Your task to perform on an android device: Open Youtube and go to "Your channel" Image 0: 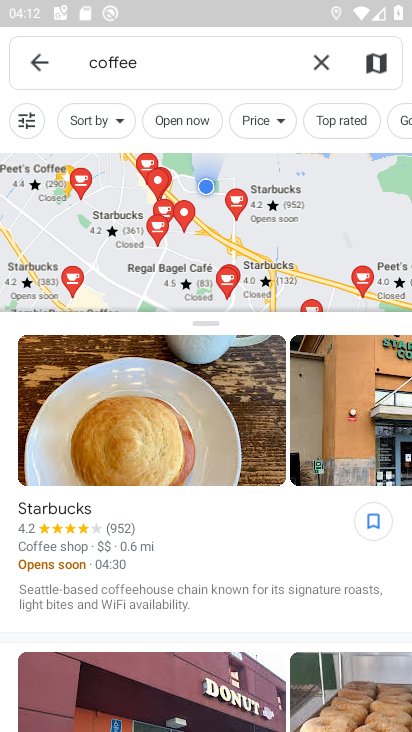
Step 0: press home button
Your task to perform on an android device: Open Youtube and go to "Your channel" Image 1: 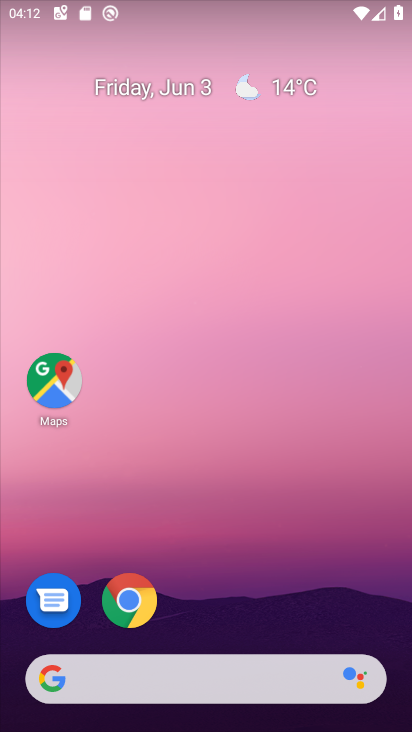
Step 1: drag from (321, 597) to (261, 166)
Your task to perform on an android device: Open Youtube and go to "Your channel" Image 2: 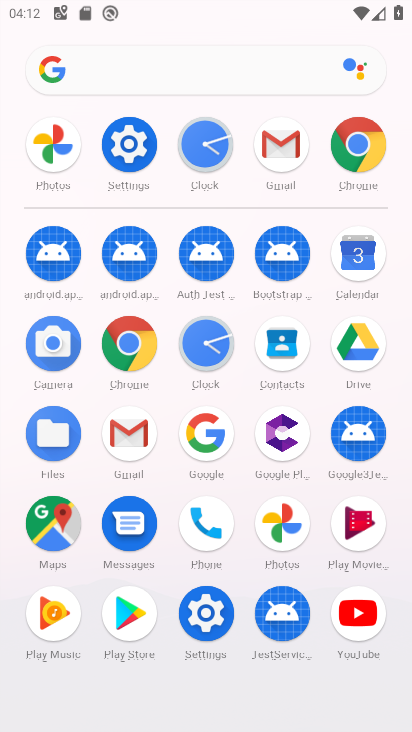
Step 2: click (357, 627)
Your task to perform on an android device: Open Youtube and go to "Your channel" Image 3: 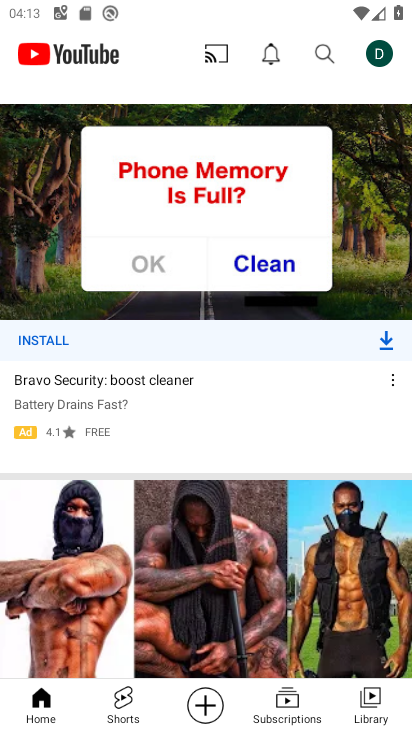
Step 3: click (374, 49)
Your task to perform on an android device: Open Youtube and go to "Your channel" Image 4: 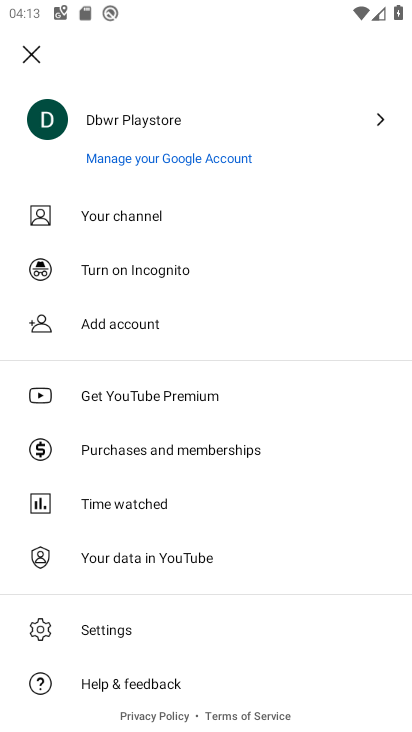
Step 4: click (143, 220)
Your task to perform on an android device: Open Youtube and go to "Your channel" Image 5: 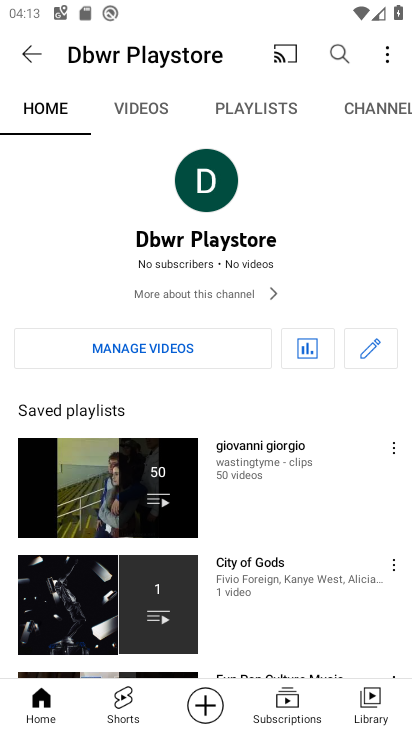
Step 5: task complete